Your task to perform on an android device: Set the phone to "Do not disturb". Image 0: 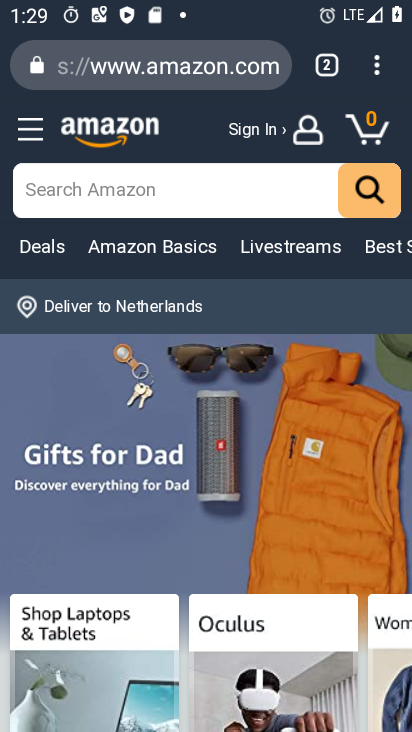
Step 0: press home button
Your task to perform on an android device: Set the phone to "Do not disturb". Image 1: 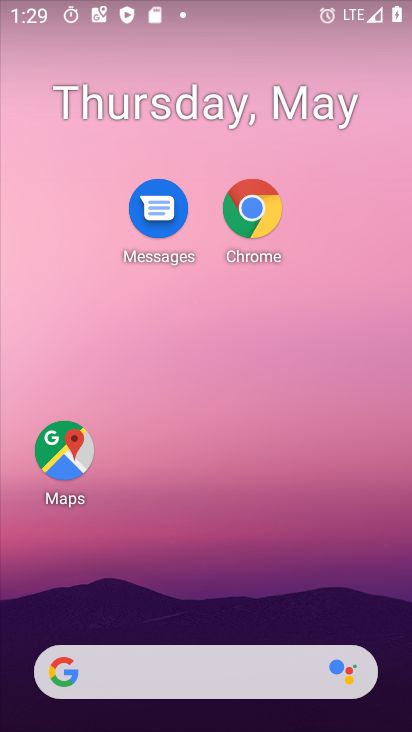
Step 1: click (242, 256)
Your task to perform on an android device: Set the phone to "Do not disturb". Image 2: 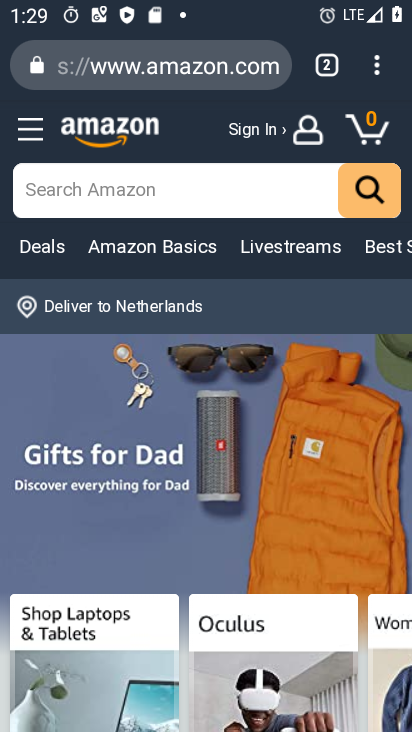
Step 2: press home button
Your task to perform on an android device: Set the phone to "Do not disturb". Image 3: 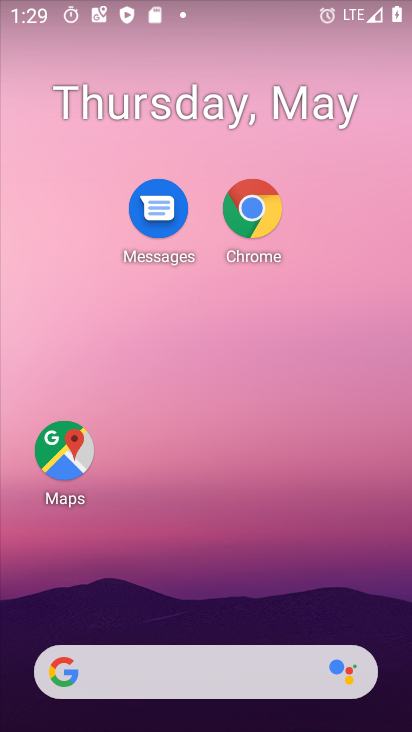
Step 3: drag from (199, 567) to (194, 83)
Your task to perform on an android device: Set the phone to "Do not disturb". Image 4: 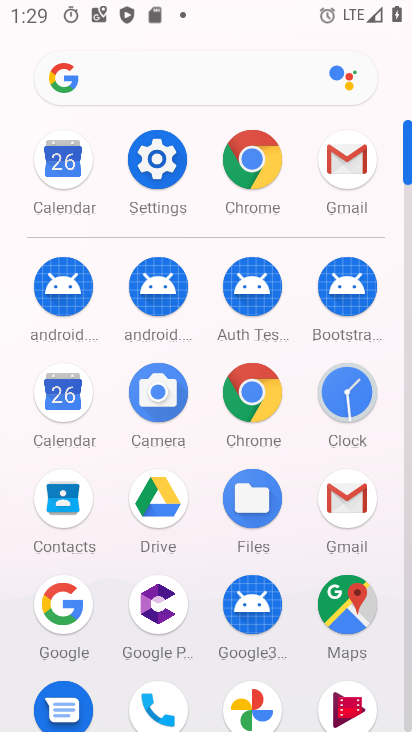
Step 4: click (147, 167)
Your task to perform on an android device: Set the phone to "Do not disturb". Image 5: 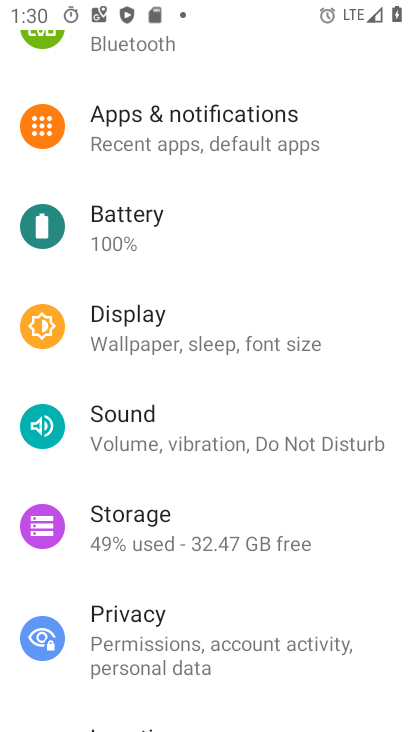
Step 5: drag from (178, 619) to (196, 254)
Your task to perform on an android device: Set the phone to "Do not disturb". Image 6: 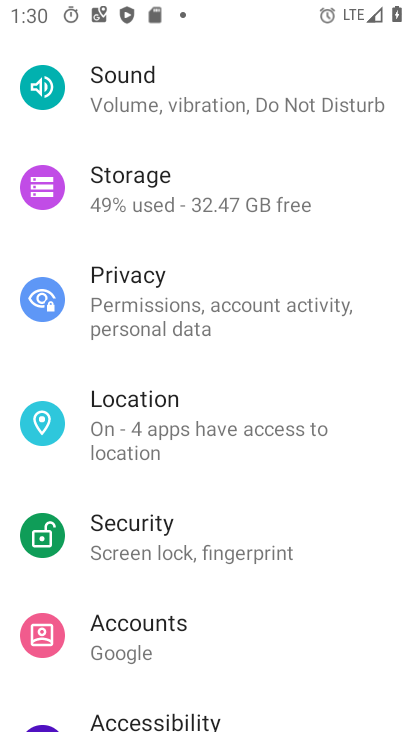
Step 6: drag from (195, 591) to (212, 121)
Your task to perform on an android device: Set the phone to "Do not disturb". Image 7: 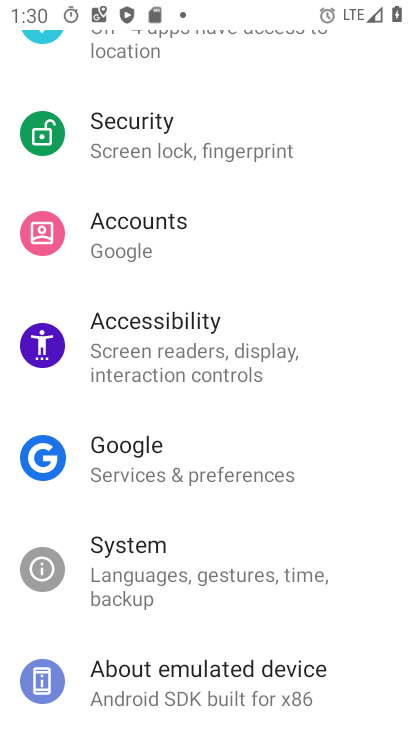
Step 7: drag from (143, 215) to (149, 649)
Your task to perform on an android device: Set the phone to "Do not disturb". Image 8: 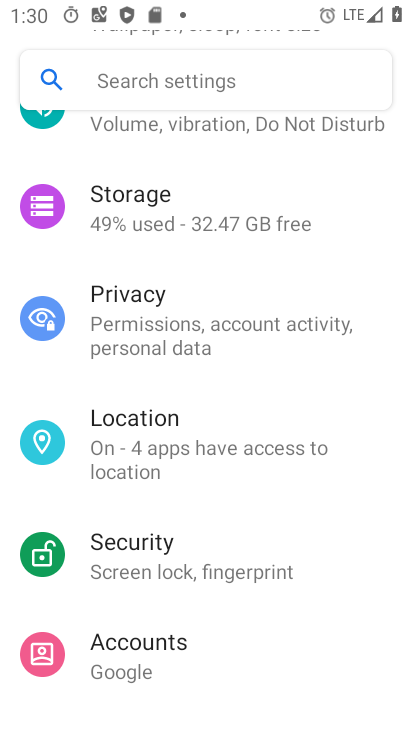
Step 8: drag from (183, 235) to (189, 504)
Your task to perform on an android device: Set the phone to "Do not disturb". Image 9: 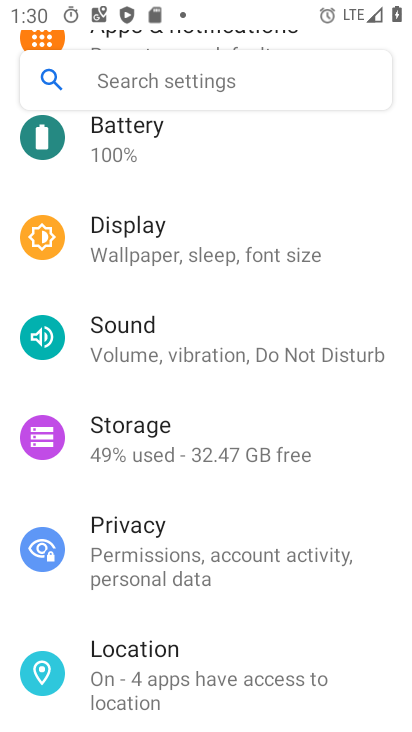
Step 9: click (144, 341)
Your task to perform on an android device: Set the phone to "Do not disturb". Image 10: 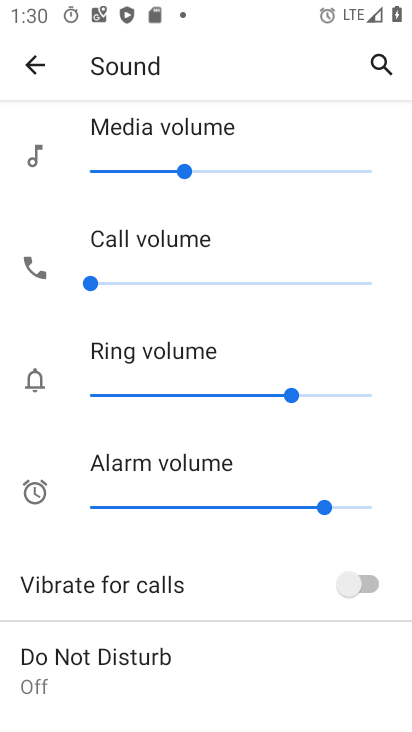
Step 10: drag from (156, 616) to (188, 229)
Your task to perform on an android device: Set the phone to "Do not disturb". Image 11: 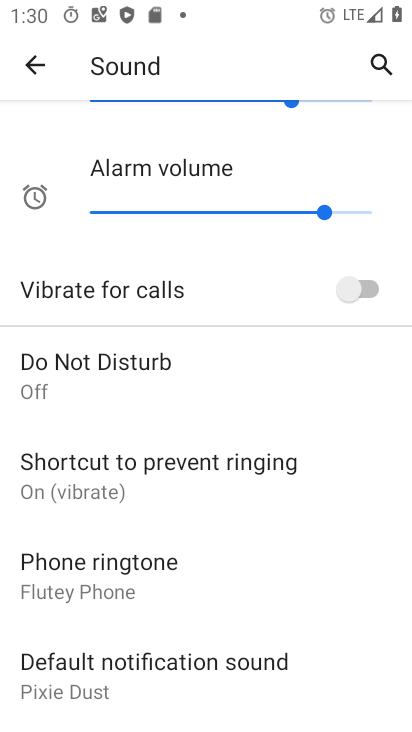
Step 11: click (96, 387)
Your task to perform on an android device: Set the phone to "Do not disturb". Image 12: 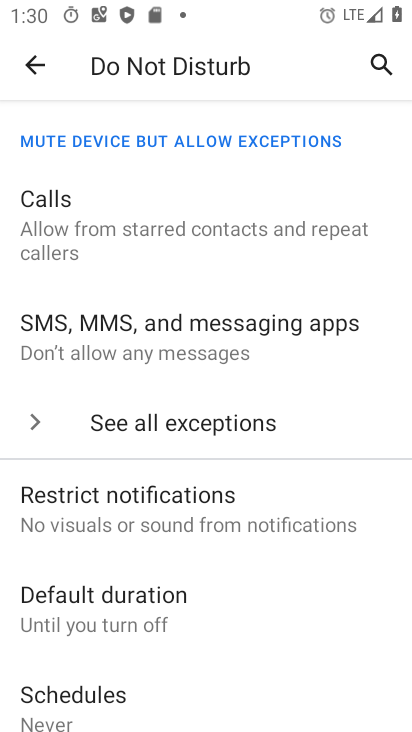
Step 12: drag from (163, 614) to (226, 217)
Your task to perform on an android device: Set the phone to "Do not disturb". Image 13: 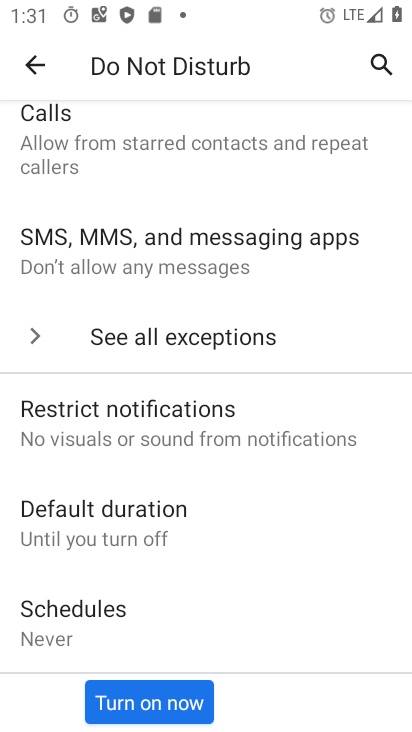
Step 13: click (162, 702)
Your task to perform on an android device: Set the phone to "Do not disturb". Image 14: 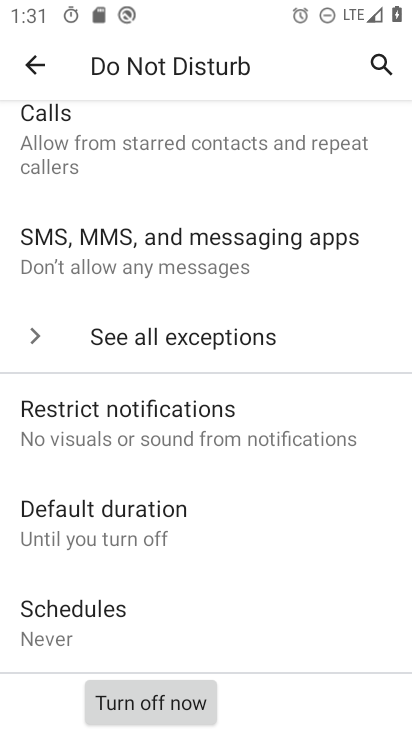
Step 14: task complete